Your task to perform on an android device: turn off priority inbox in the gmail app Image 0: 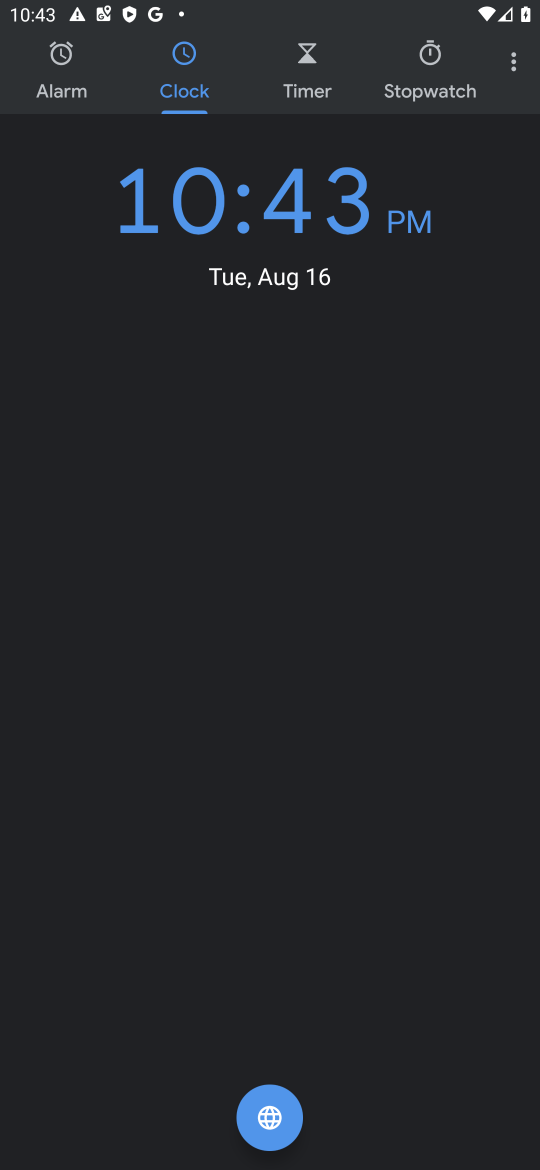
Step 0: press home button
Your task to perform on an android device: turn off priority inbox in the gmail app Image 1: 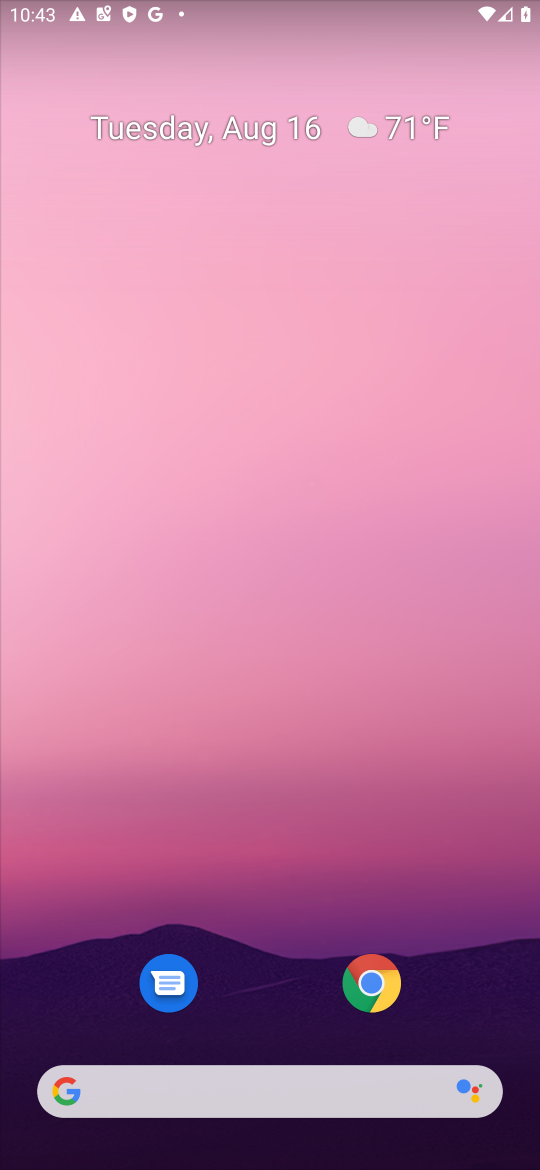
Step 1: drag from (231, 1096) to (345, 152)
Your task to perform on an android device: turn off priority inbox in the gmail app Image 2: 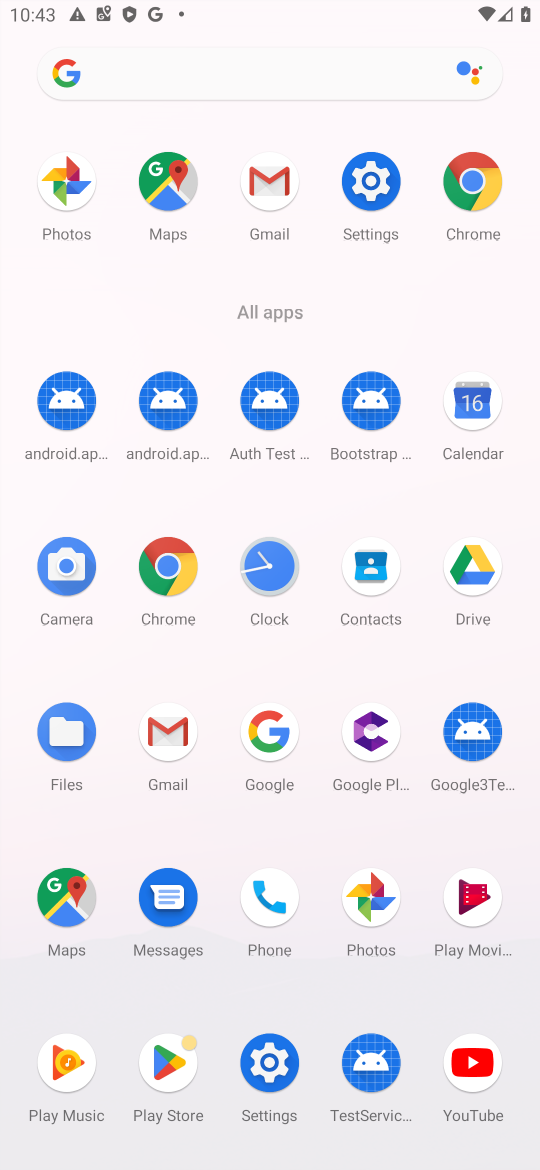
Step 2: click (155, 761)
Your task to perform on an android device: turn off priority inbox in the gmail app Image 3: 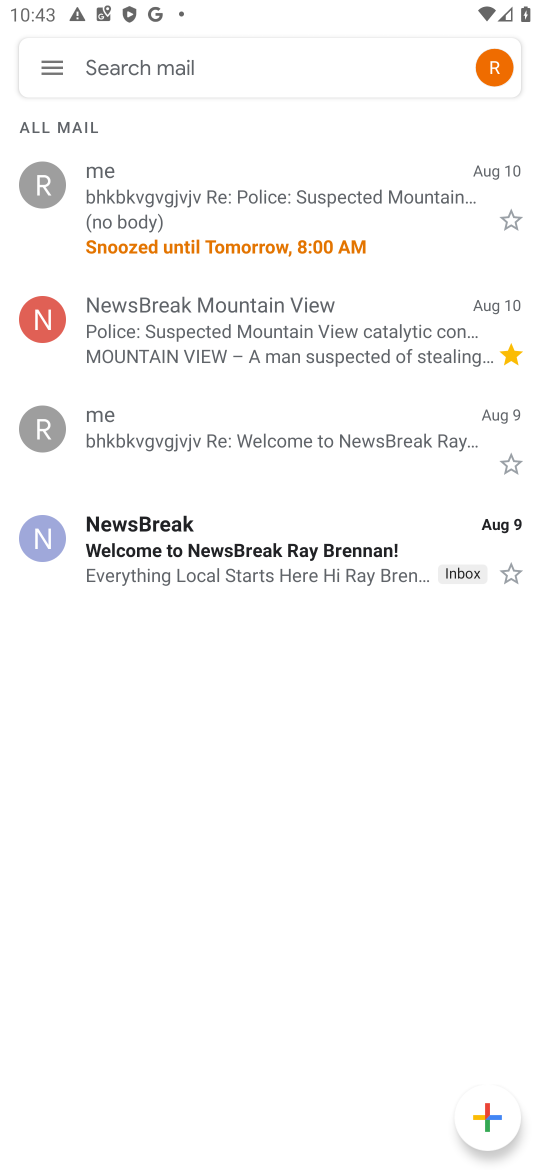
Step 3: click (32, 68)
Your task to perform on an android device: turn off priority inbox in the gmail app Image 4: 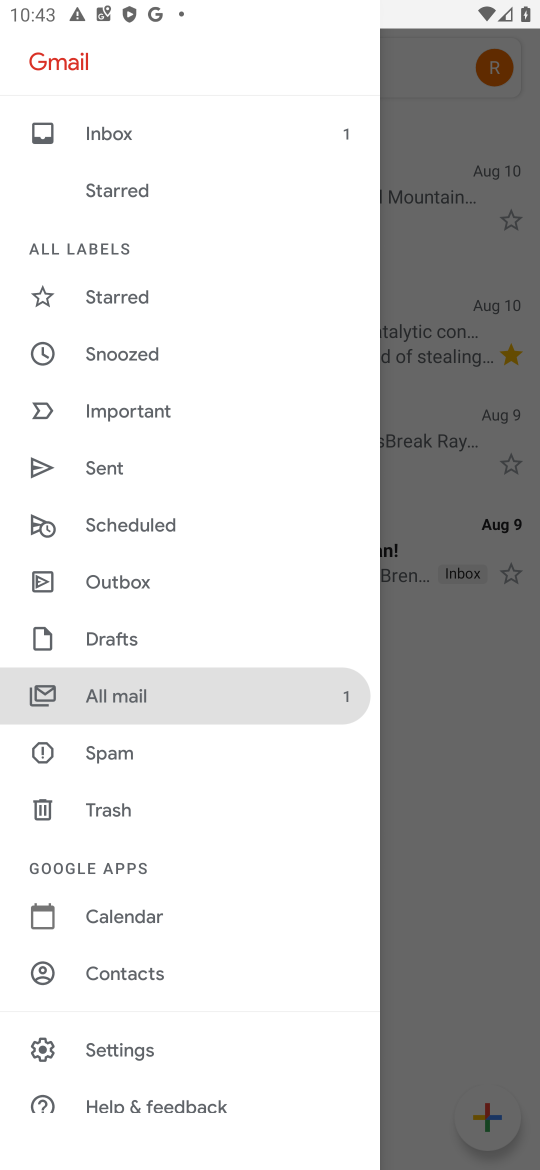
Step 4: click (118, 1041)
Your task to perform on an android device: turn off priority inbox in the gmail app Image 5: 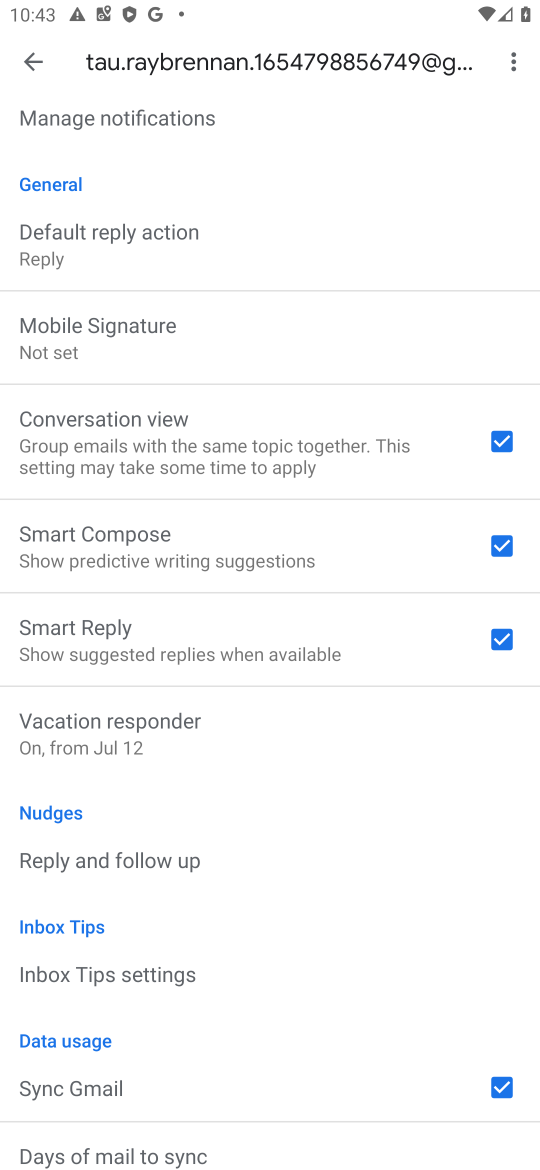
Step 5: drag from (212, 386) to (126, 1132)
Your task to perform on an android device: turn off priority inbox in the gmail app Image 6: 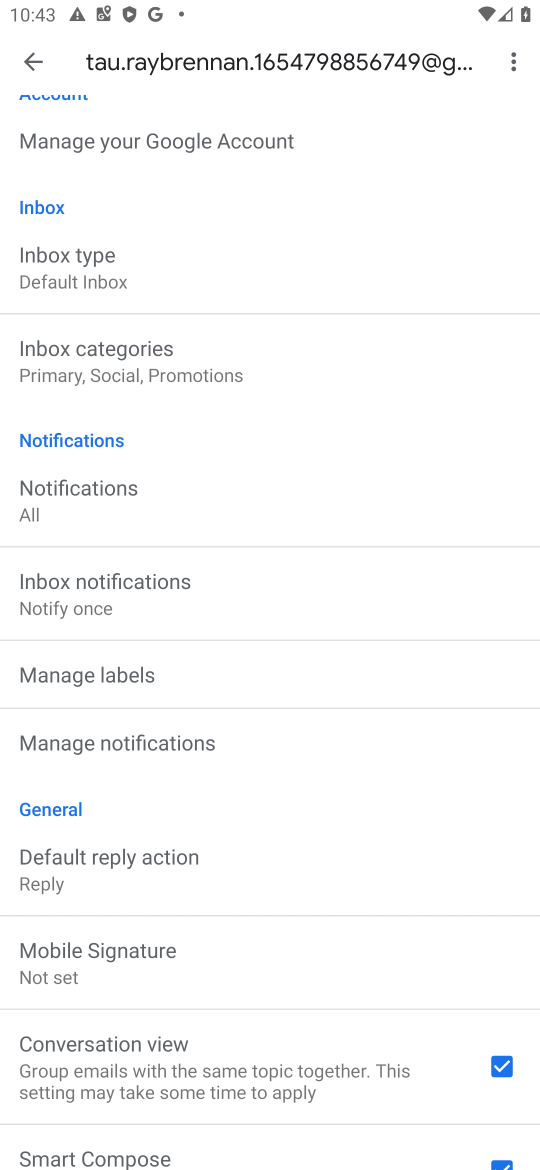
Step 6: click (99, 277)
Your task to perform on an android device: turn off priority inbox in the gmail app Image 7: 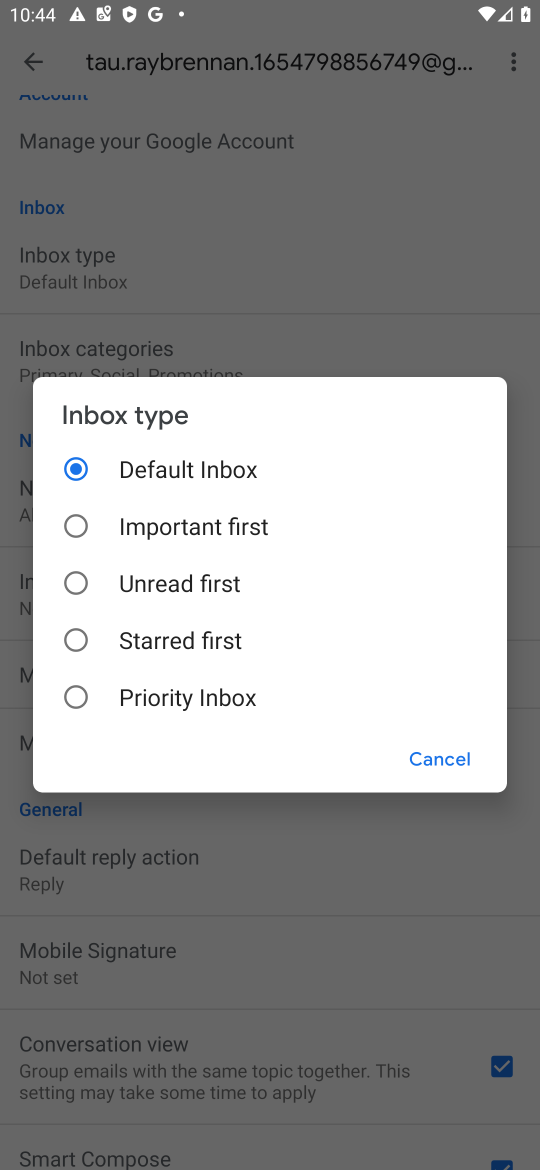
Step 7: task complete